Your task to perform on an android device: turn off javascript in the chrome app Image 0: 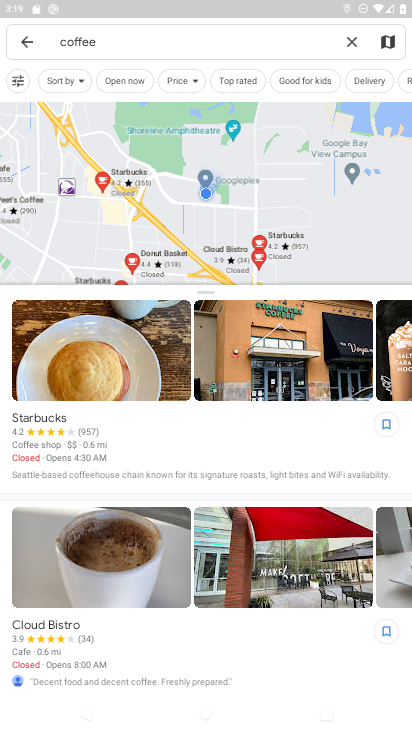
Step 0: press home button
Your task to perform on an android device: turn off javascript in the chrome app Image 1: 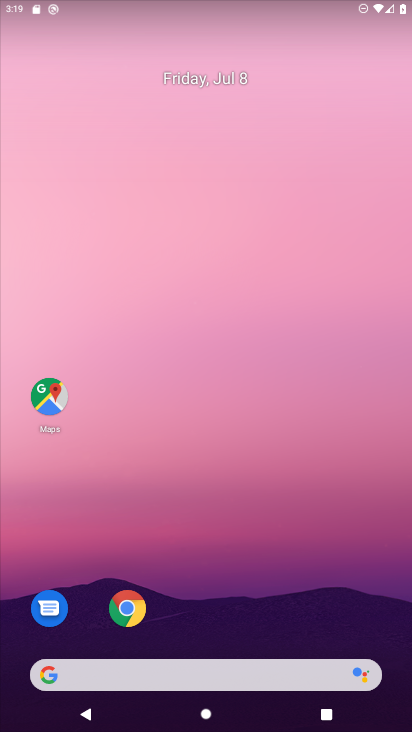
Step 1: drag from (295, 594) to (283, 162)
Your task to perform on an android device: turn off javascript in the chrome app Image 2: 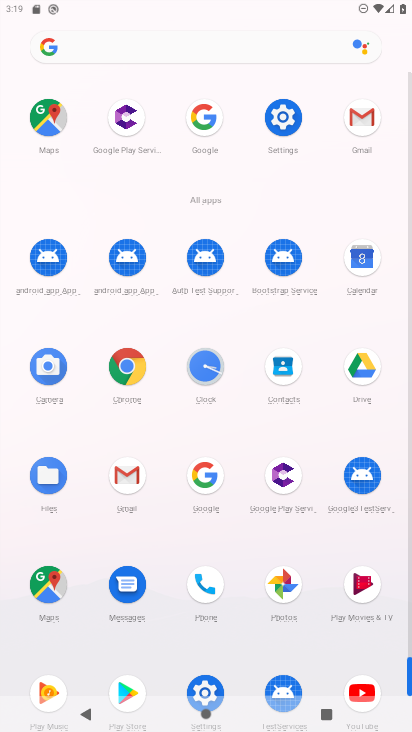
Step 2: click (132, 356)
Your task to perform on an android device: turn off javascript in the chrome app Image 3: 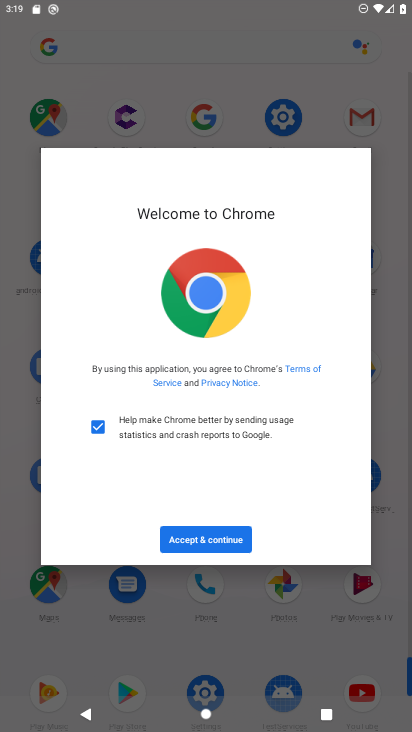
Step 3: click (225, 533)
Your task to perform on an android device: turn off javascript in the chrome app Image 4: 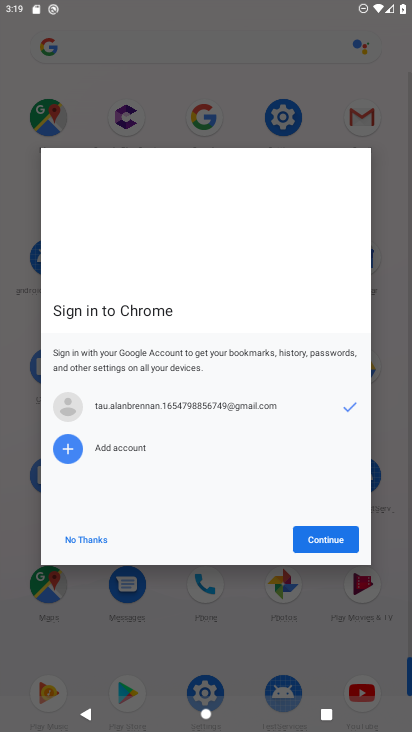
Step 4: click (310, 528)
Your task to perform on an android device: turn off javascript in the chrome app Image 5: 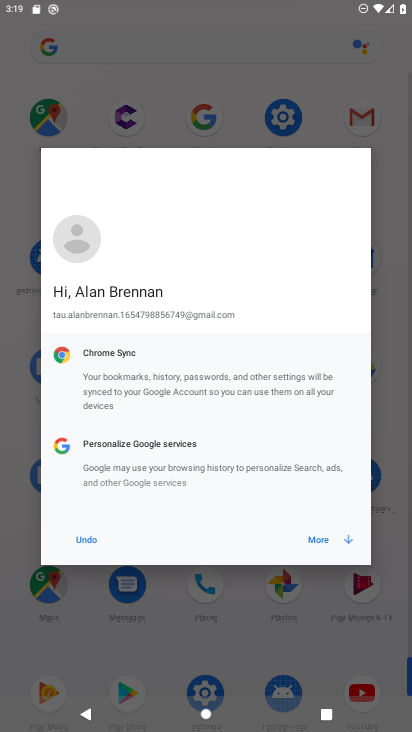
Step 5: click (310, 528)
Your task to perform on an android device: turn off javascript in the chrome app Image 6: 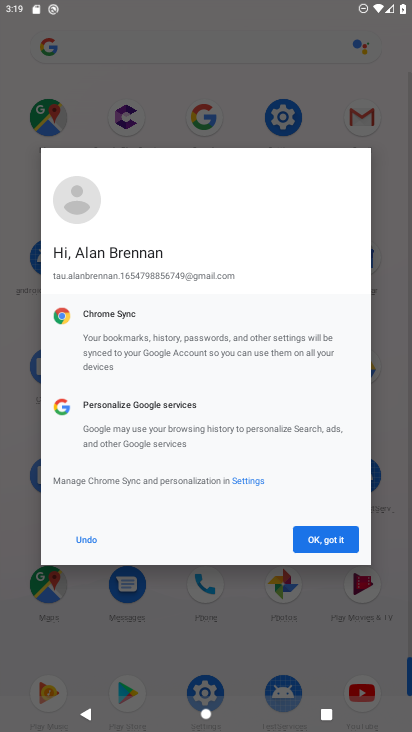
Step 6: click (310, 528)
Your task to perform on an android device: turn off javascript in the chrome app Image 7: 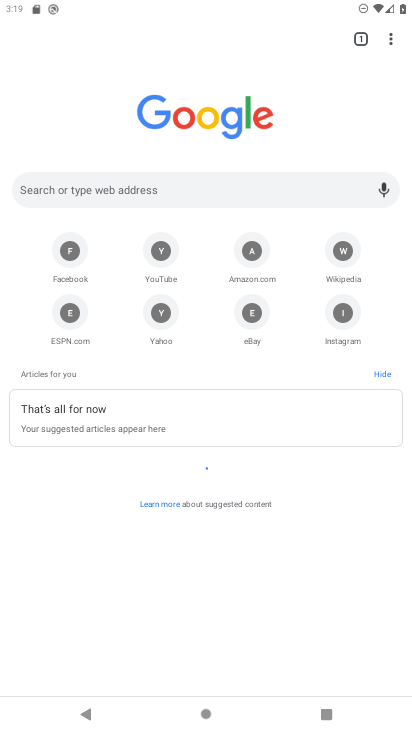
Step 7: drag from (388, 39) to (249, 320)
Your task to perform on an android device: turn off javascript in the chrome app Image 8: 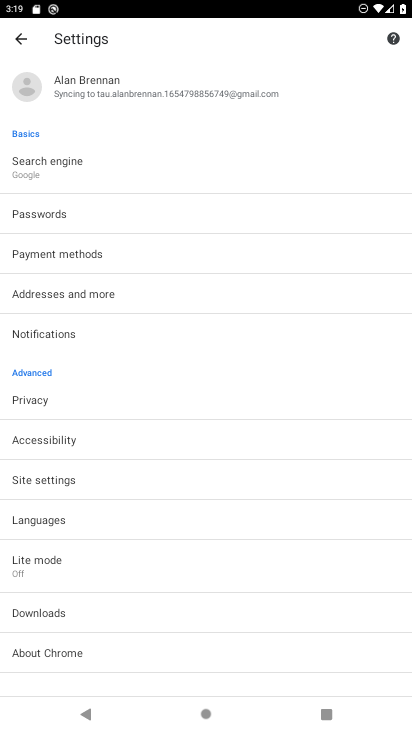
Step 8: click (59, 466)
Your task to perform on an android device: turn off javascript in the chrome app Image 9: 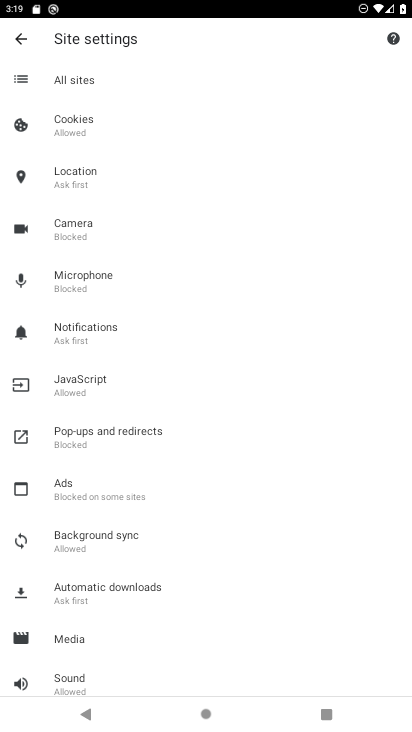
Step 9: click (72, 371)
Your task to perform on an android device: turn off javascript in the chrome app Image 10: 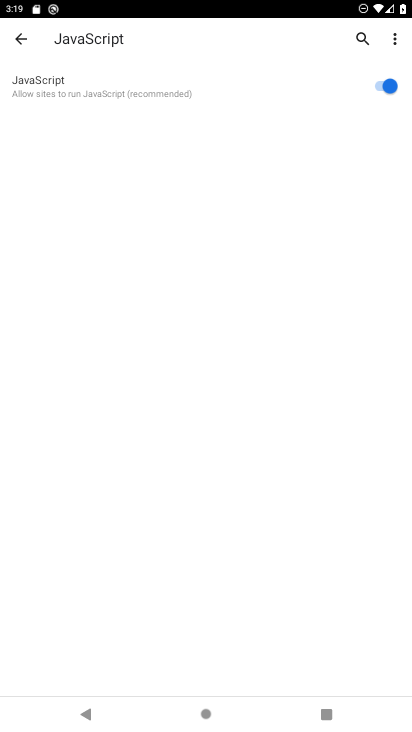
Step 10: click (385, 80)
Your task to perform on an android device: turn off javascript in the chrome app Image 11: 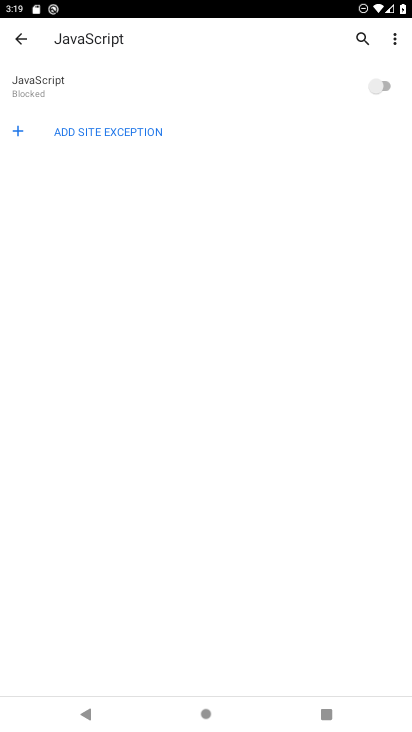
Step 11: task complete